Your task to perform on an android device: create a new album in the google photos Image 0: 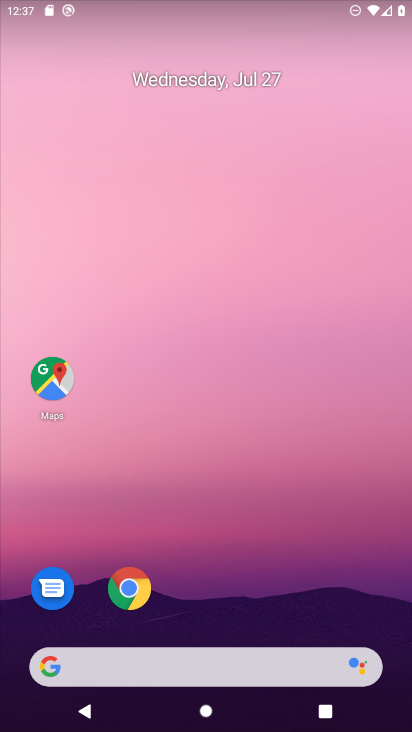
Step 0: drag from (61, 636) to (196, 275)
Your task to perform on an android device: create a new album in the google photos Image 1: 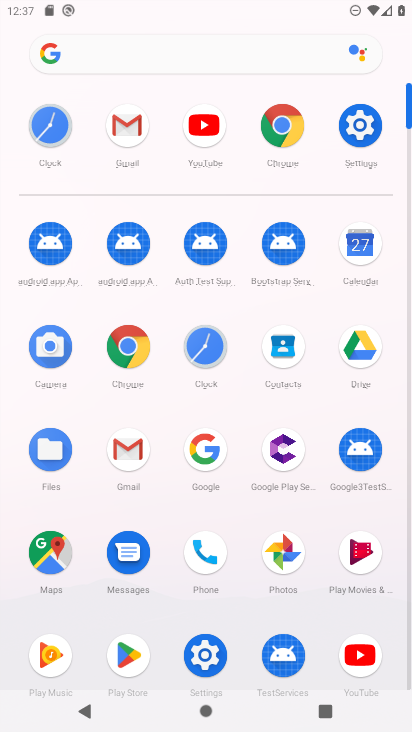
Step 1: click (284, 562)
Your task to perform on an android device: create a new album in the google photos Image 2: 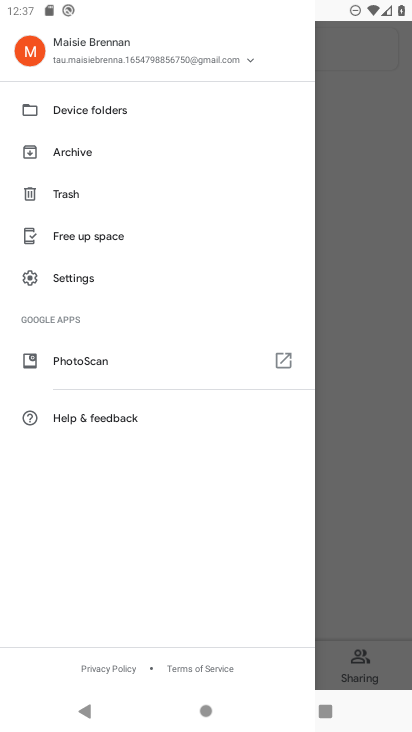
Step 2: click (376, 547)
Your task to perform on an android device: create a new album in the google photos Image 3: 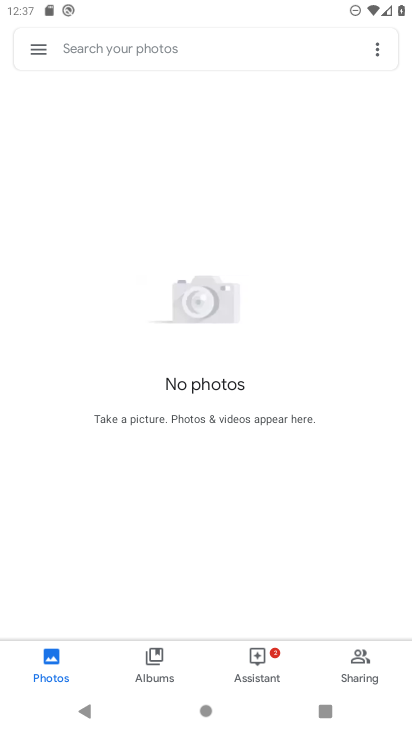
Step 3: click (376, 34)
Your task to perform on an android device: create a new album in the google photos Image 4: 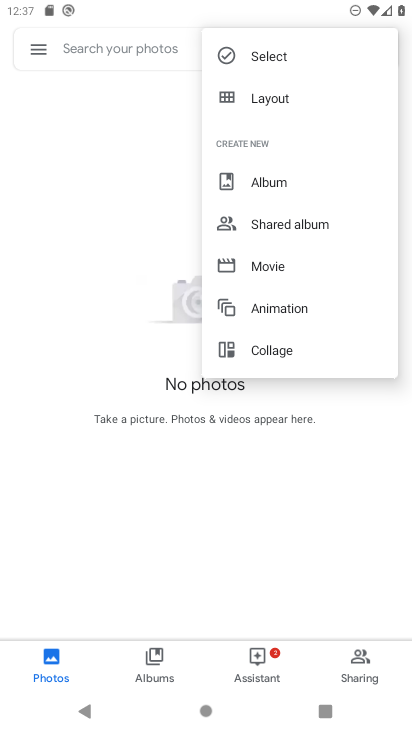
Step 4: click (240, 54)
Your task to perform on an android device: create a new album in the google photos Image 5: 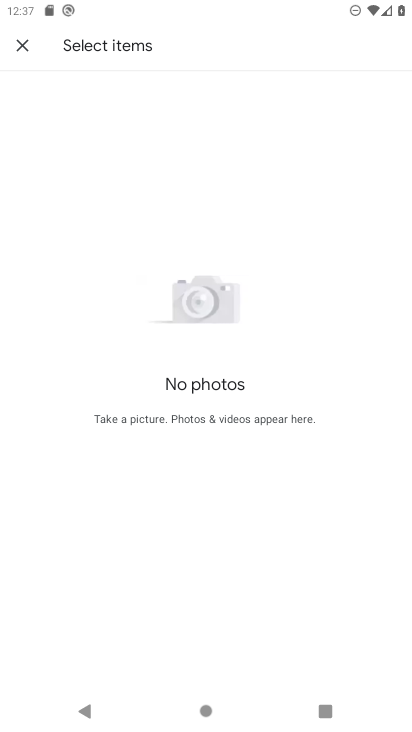
Step 5: task complete